Your task to perform on an android device: Open the map Image 0: 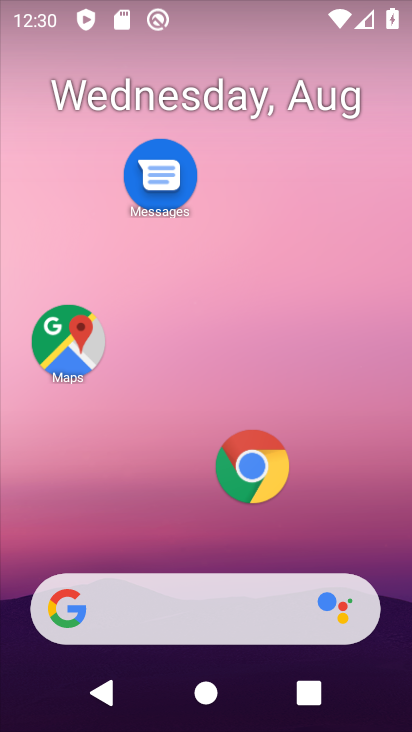
Step 0: click (64, 339)
Your task to perform on an android device: Open the map Image 1: 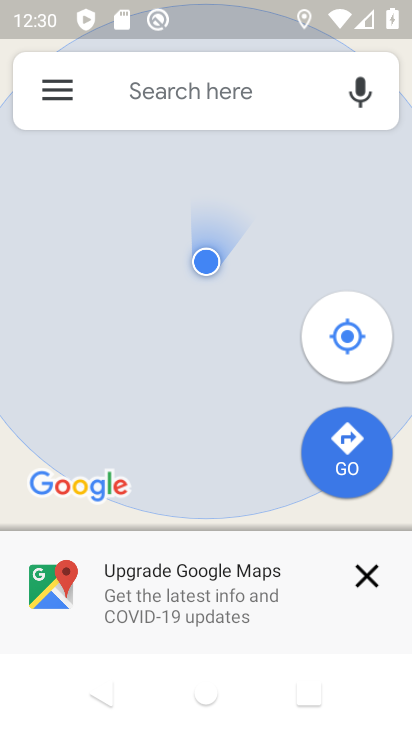
Step 1: task complete